Your task to perform on an android device: turn off improve location accuracy Image 0: 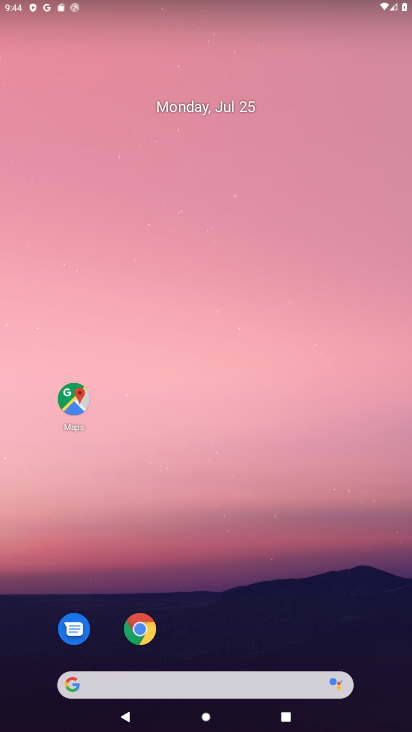
Step 0: drag from (178, 640) to (190, 8)
Your task to perform on an android device: turn off improve location accuracy Image 1: 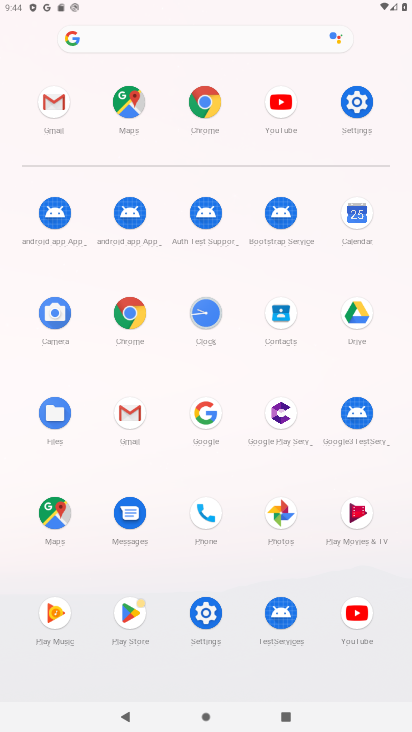
Step 1: click (358, 145)
Your task to perform on an android device: turn off improve location accuracy Image 2: 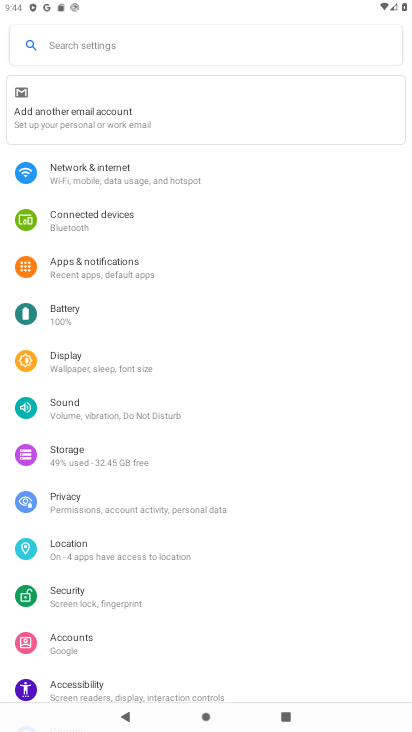
Step 2: click (64, 537)
Your task to perform on an android device: turn off improve location accuracy Image 3: 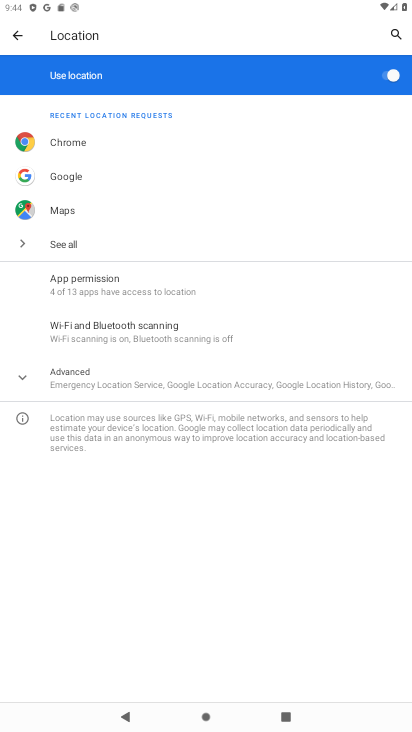
Step 3: click (92, 384)
Your task to perform on an android device: turn off improve location accuracy Image 4: 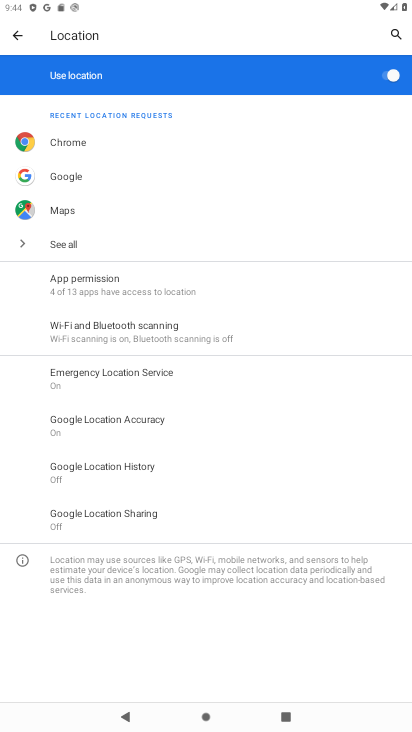
Step 4: click (95, 431)
Your task to perform on an android device: turn off improve location accuracy Image 5: 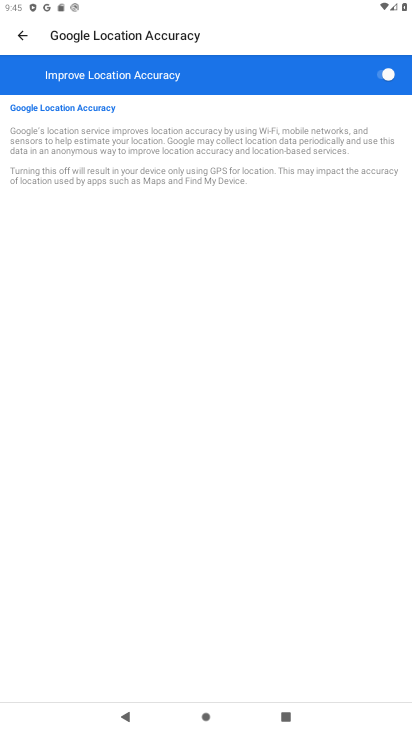
Step 5: click (381, 82)
Your task to perform on an android device: turn off improve location accuracy Image 6: 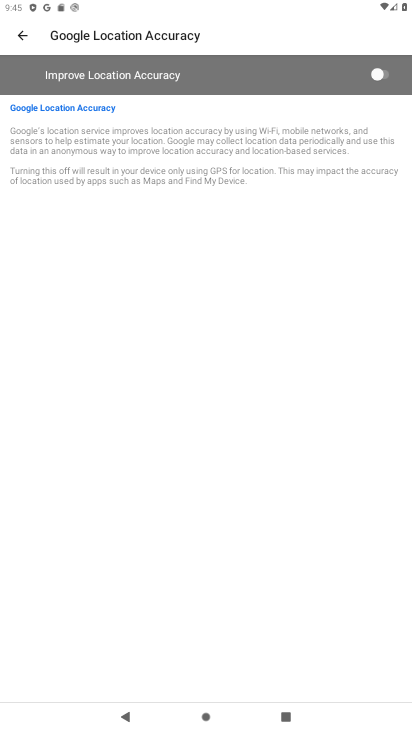
Step 6: task complete